Your task to perform on an android device: turn off airplane mode Image 0: 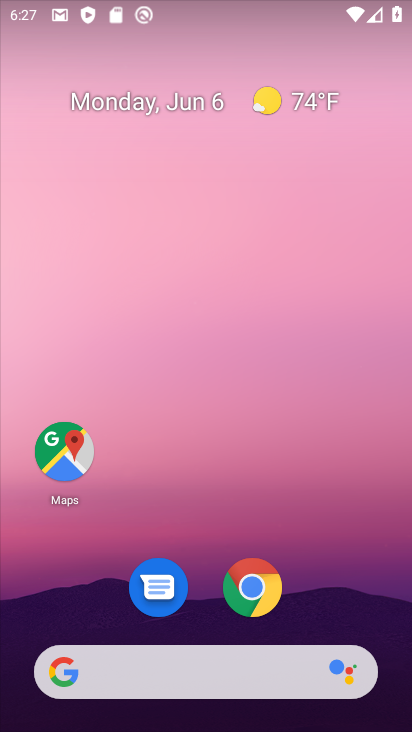
Step 0: drag from (237, 8) to (314, 474)
Your task to perform on an android device: turn off airplane mode Image 1: 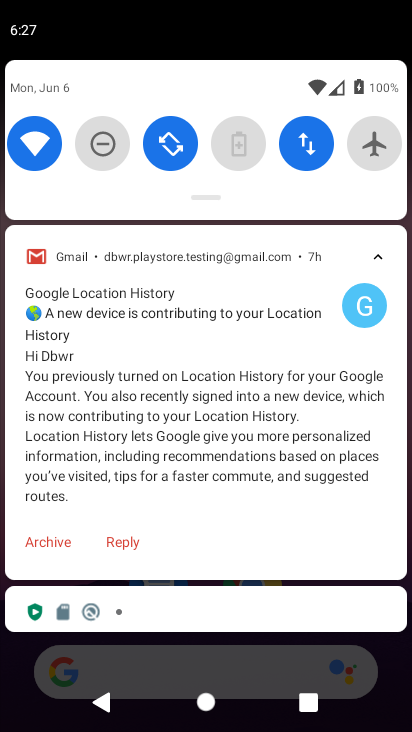
Step 1: task complete